Your task to perform on an android device: Go to Maps Image 0: 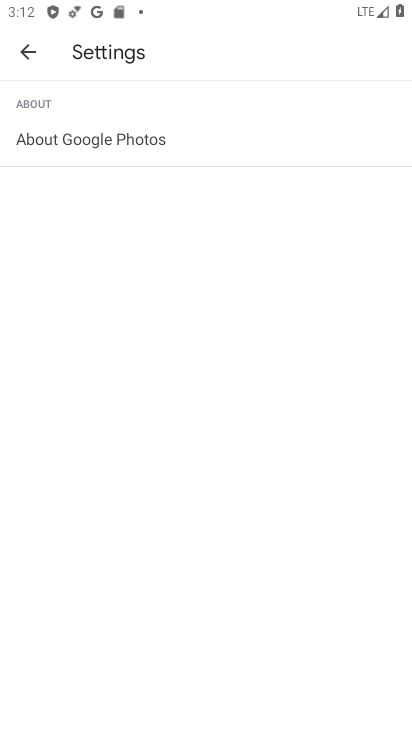
Step 0: press home button
Your task to perform on an android device: Go to Maps Image 1: 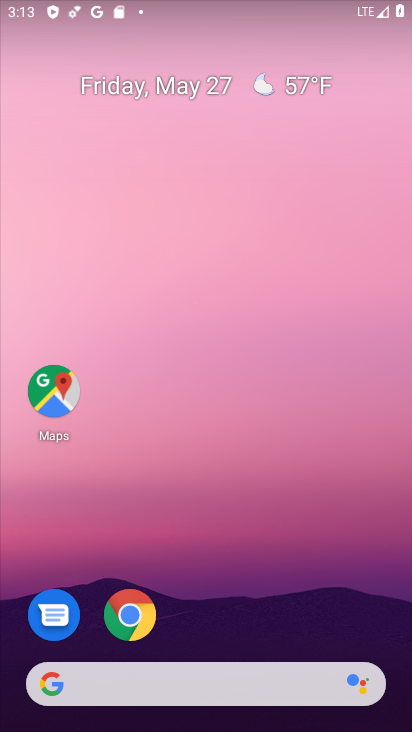
Step 1: click (51, 396)
Your task to perform on an android device: Go to Maps Image 2: 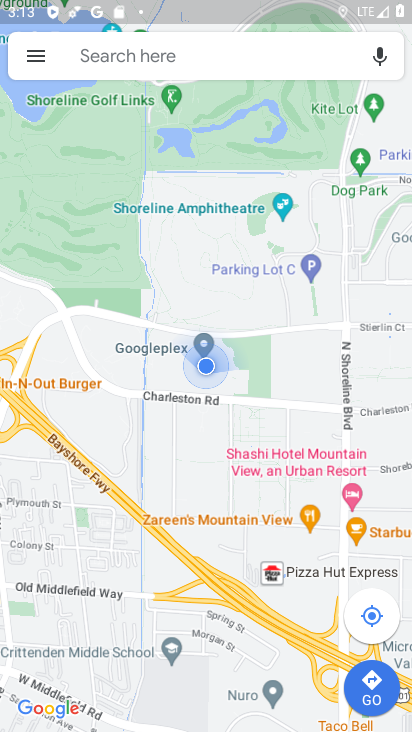
Step 2: task complete